Your task to perform on an android device: Show me popular videos on Youtube Image 0: 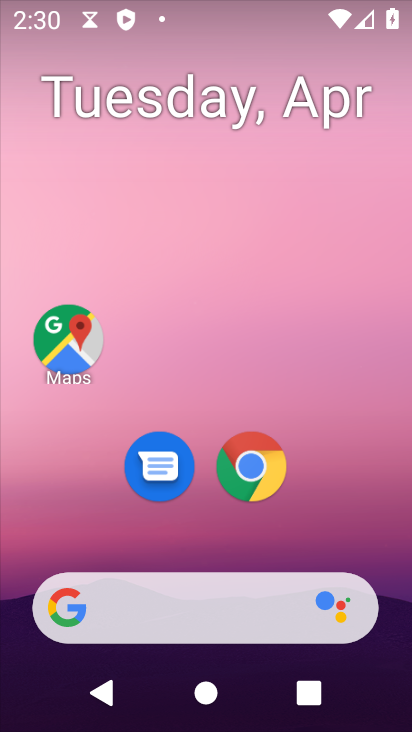
Step 0: drag from (400, 630) to (375, 3)
Your task to perform on an android device: Show me popular videos on Youtube Image 1: 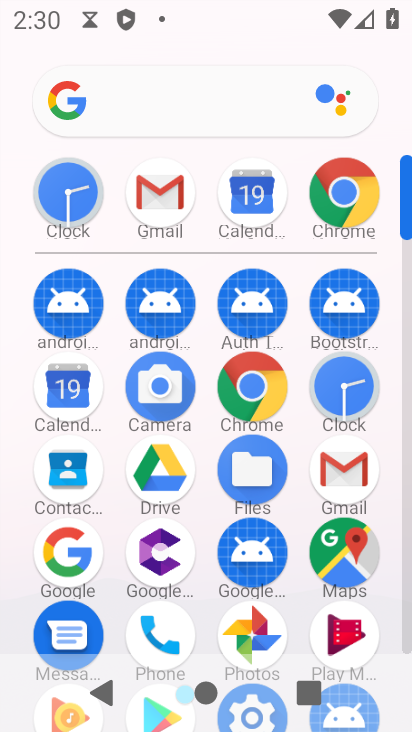
Step 1: drag from (13, 648) to (18, 387)
Your task to perform on an android device: Show me popular videos on Youtube Image 2: 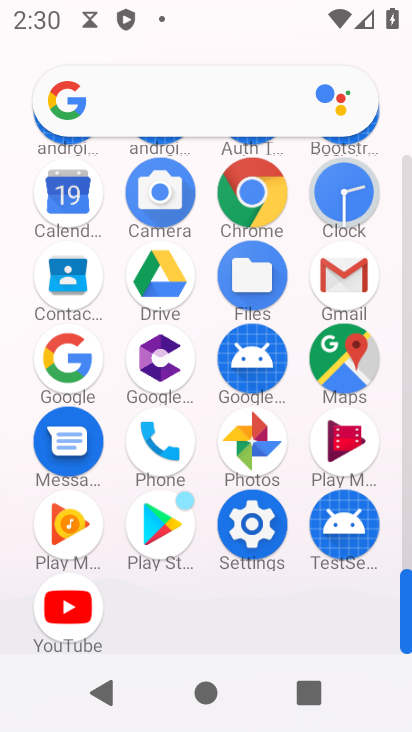
Step 2: click (68, 611)
Your task to perform on an android device: Show me popular videos on Youtube Image 3: 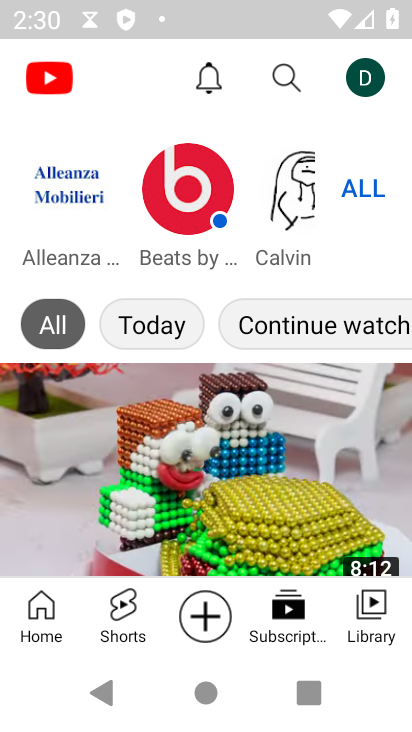
Step 3: click (24, 602)
Your task to perform on an android device: Show me popular videos on Youtube Image 4: 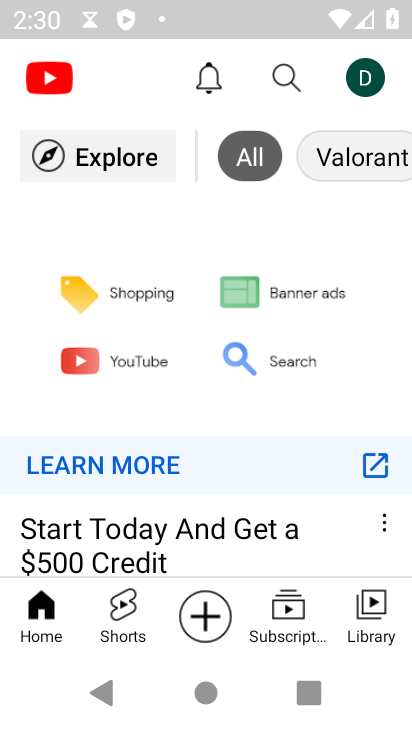
Step 4: click (147, 155)
Your task to perform on an android device: Show me popular videos on Youtube Image 5: 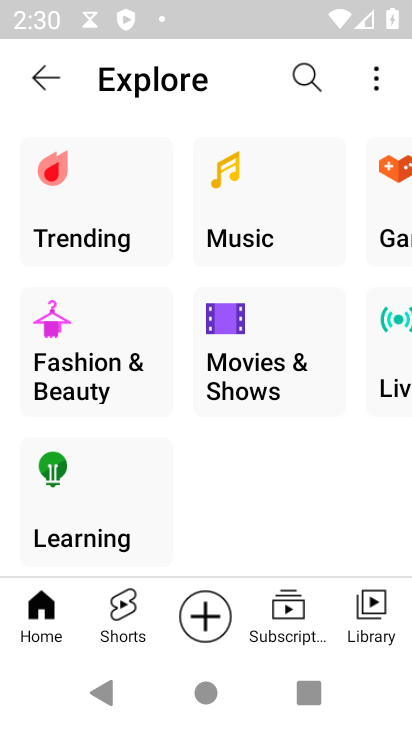
Step 5: click (119, 242)
Your task to perform on an android device: Show me popular videos on Youtube Image 6: 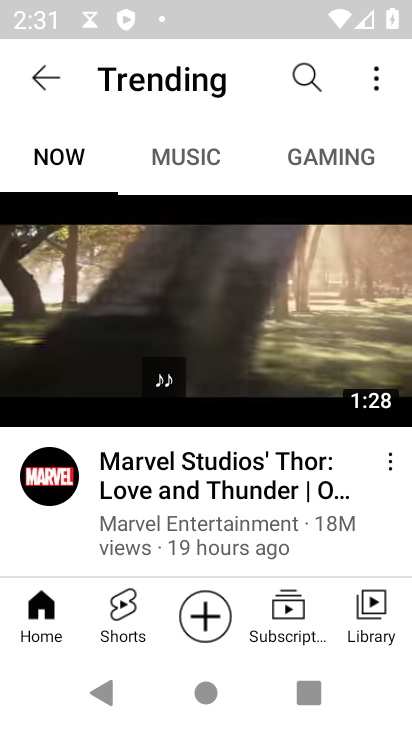
Step 6: task complete